Your task to perform on an android device: Open Google Chrome and click the shortcut for Amazon.com Image 0: 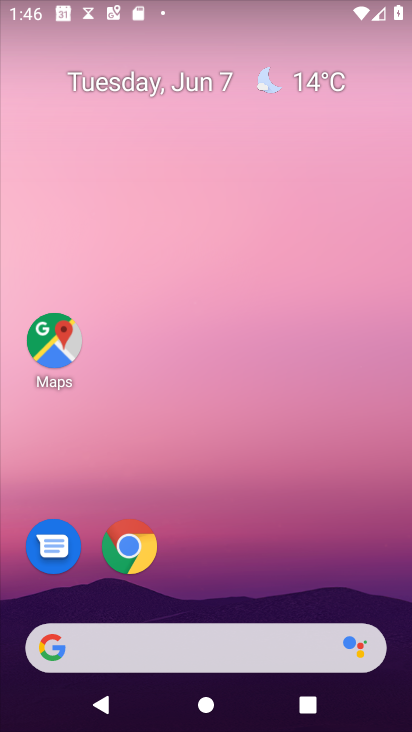
Step 0: click (134, 558)
Your task to perform on an android device: Open Google Chrome and click the shortcut for Amazon.com Image 1: 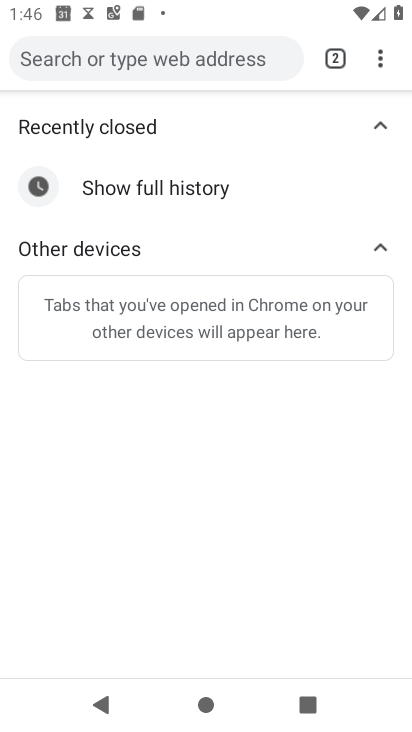
Step 1: click (331, 54)
Your task to perform on an android device: Open Google Chrome and click the shortcut for Amazon.com Image 2: 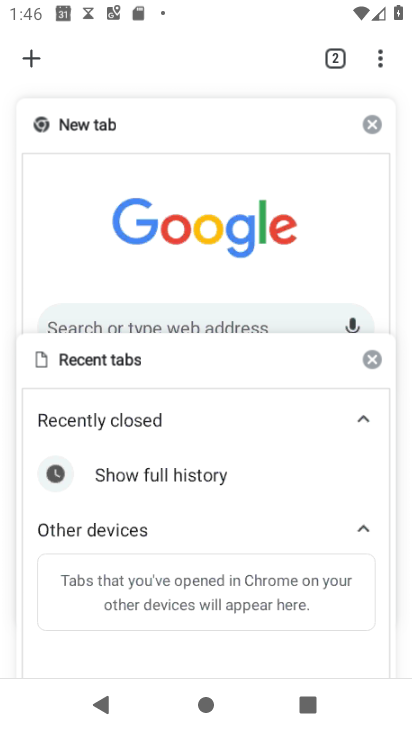
Step 2: click (32, 54)
Your task to perform on an android device: Open Google Chrome and click the shortcut for Amazon.com Image 3: 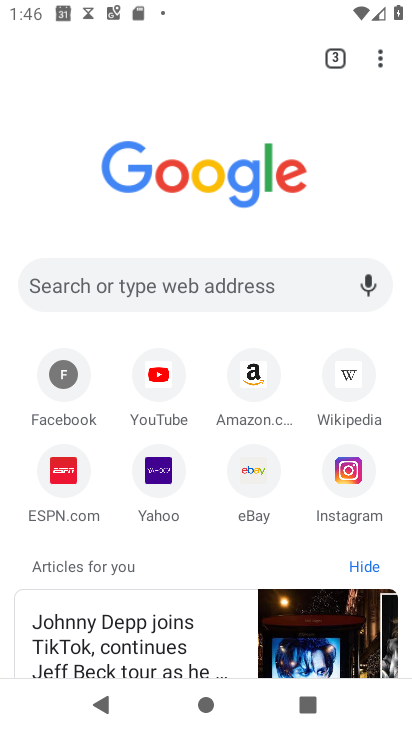
Step 3: click (259, 374)
Your task to perform on an android device: Open Google Chrome and click the shortcut for Amazon.com Image 4: 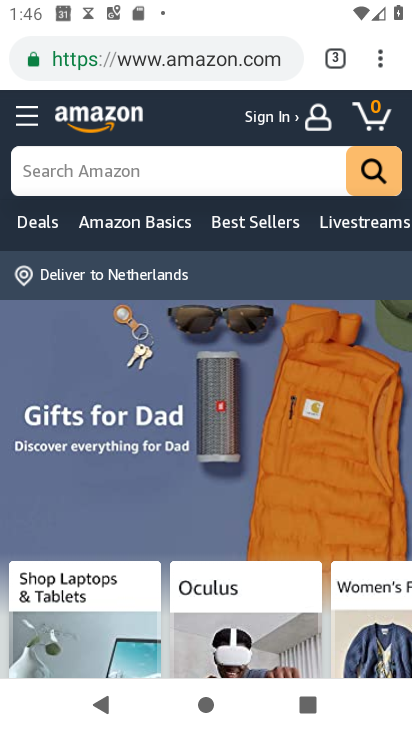
Step 4: task complete